Your task to perform on an android device: open a bookmark in the chrome app Image 0: 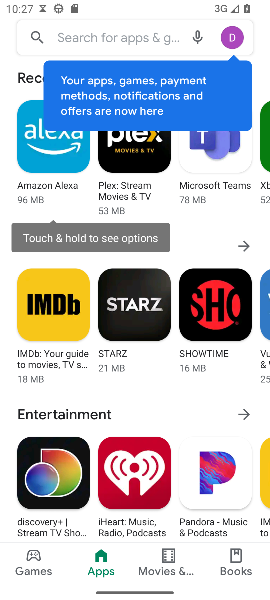
Step 0: press home button
Your task to perform on an android device: open a bookmark in the chrome app Image 1: 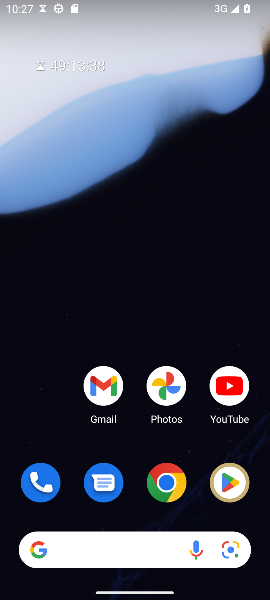
Step 1: drag from (101, 512) to (5, 90)
Your task to perform on an android device: open a bookmark in the chrome app Image 2: 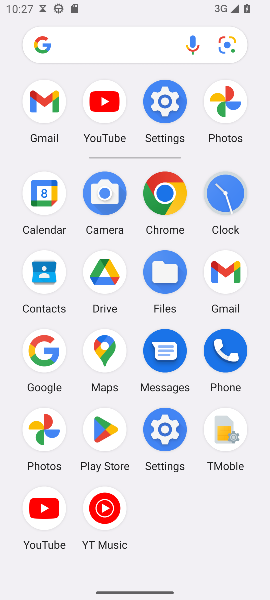
Step 2: click (165, 197)
Your task to perform on an android device: open a bookmark in the chrome app Image 3: 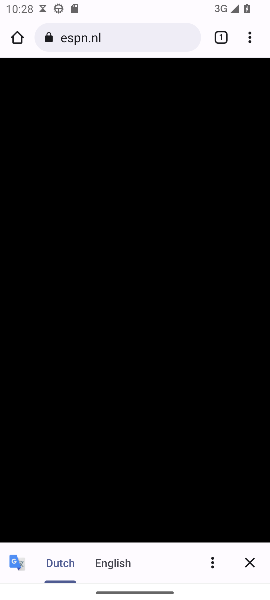
Step 3: task complete